Your task to perform on an android device: Look up the best rated headphones on Aliexpress Image 0: 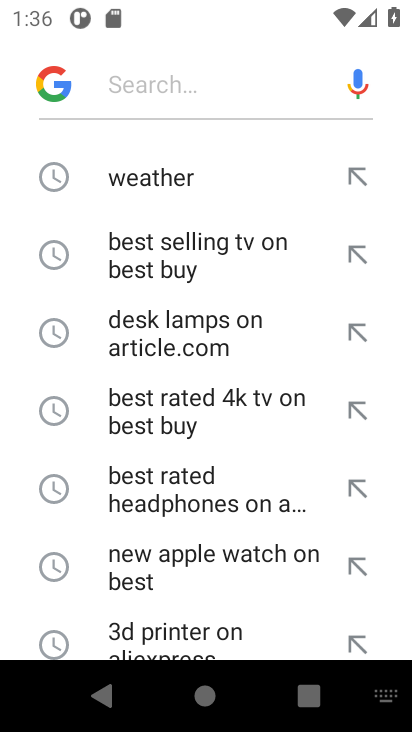
Step 0: press back button
Your task to perform on an android device: Look up the best rated headphones on Aliexpress Image 1: 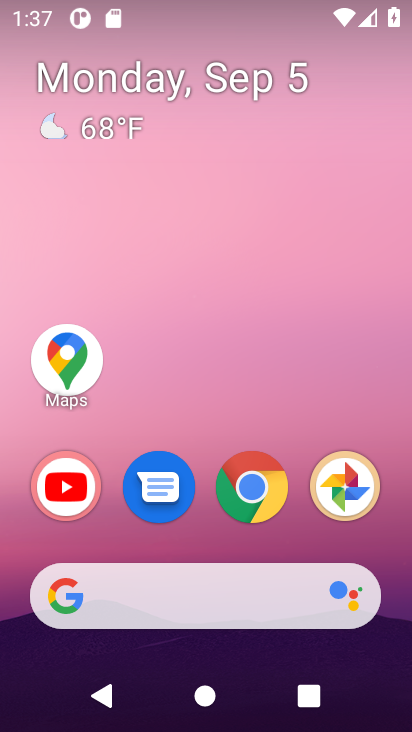
Step 1: click (238, 495)
Your task to perform on an android device: Look up the best rated headphones on Aliexpress Image 2: 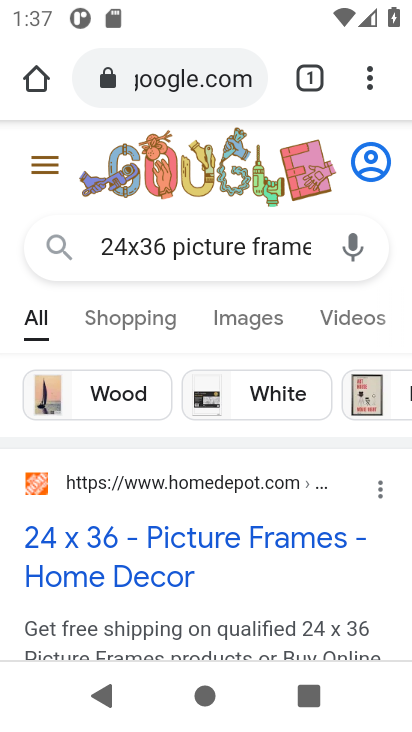
Step 2: click (177, 77)
Your task to perform on an android device: Look up the best rated headphones on Aliexpress Image 3: 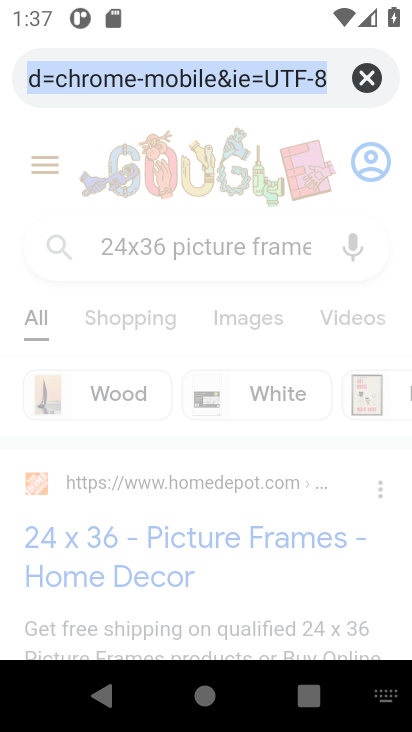
Step 3: click (361, 74)
Your task to perform on an android device: Look up the best rated headphones on Aliexpress Image 4: 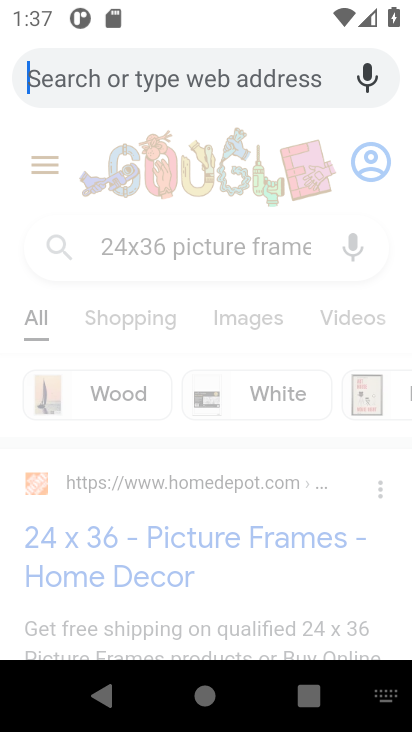
Step 4: type " the best rated headphones on Aliexpress"
Your task to perform on an android device: Look up the best rated headphones on Aliexpress Image 5: 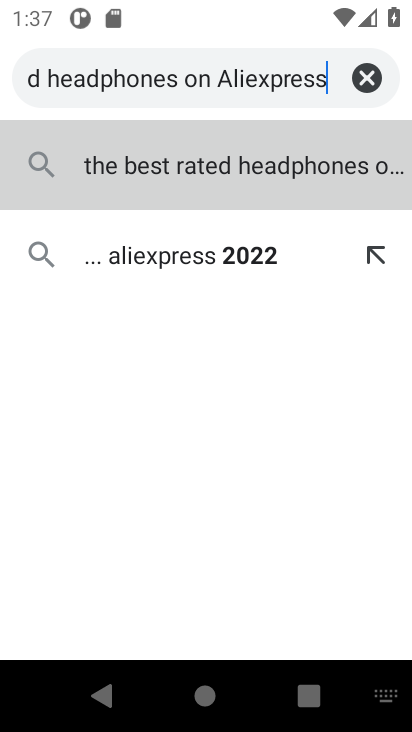
Step 5: click (159, 171)
Your task to perform on an android device: Look up the best rated headphones on Aliexpress Image 6: 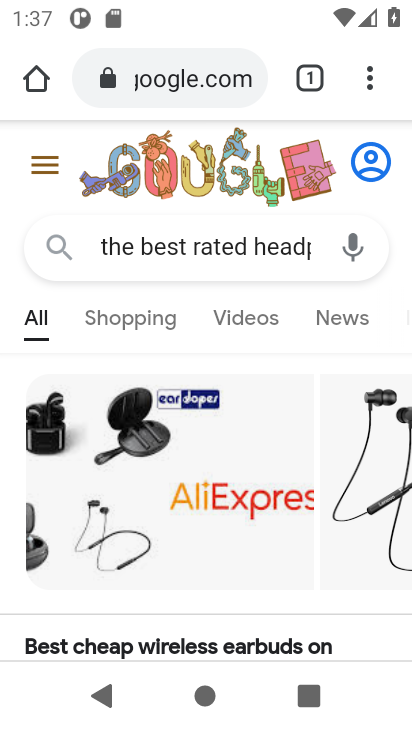
Step 6: task complete